Your task to perform on an android device: empty trash in the gmail app Image 0: 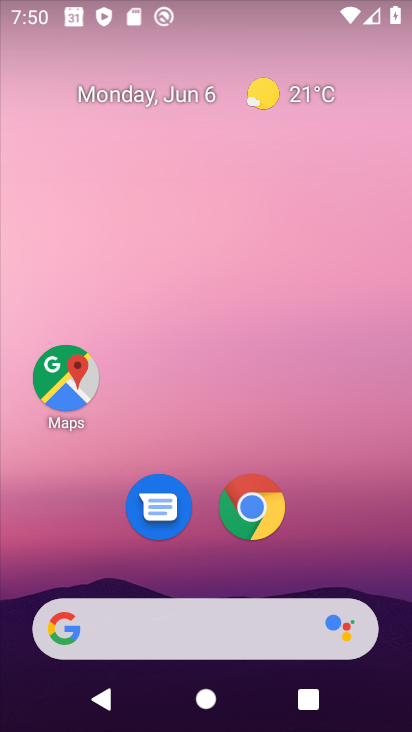
Step 0: drag from (198, 586) to (289, 12)
Your task to perform on an android device: empty trash in the gmail app Image 1: 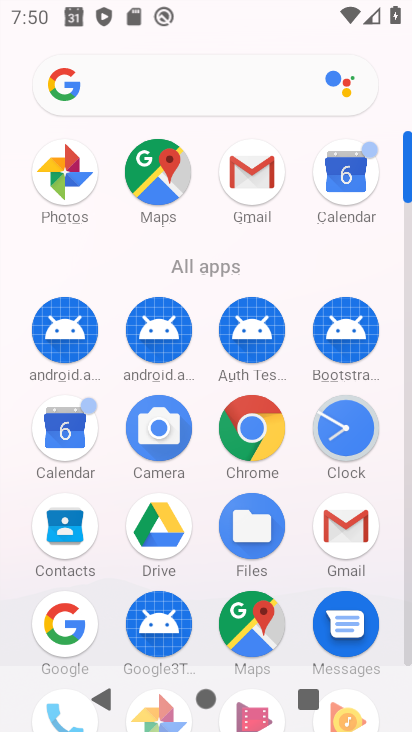
Step 1: click (345, 544)
Your task to perform on an android device: empty trash in the gmail app Image 2: 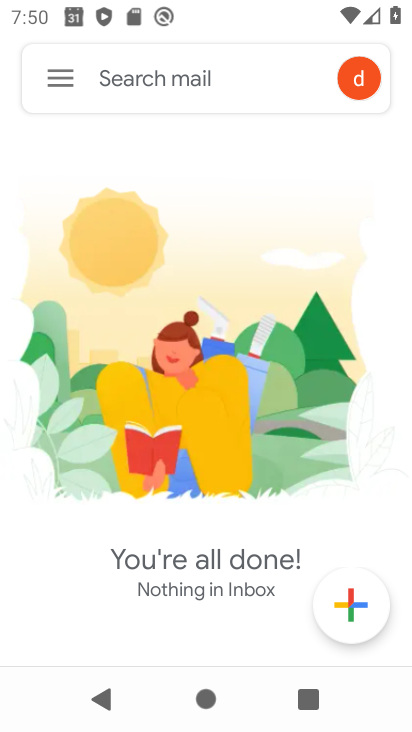
Step 2: click (56, 70)
Your task to perform on an android device: empty trash in the gmail app Image 3: 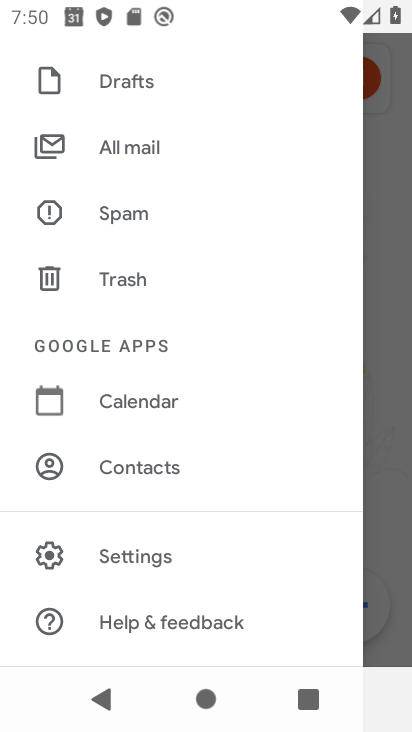
Step 3: click (134, 278)
Your task to perform on an android device: empty trash in the gmail app Image 4: 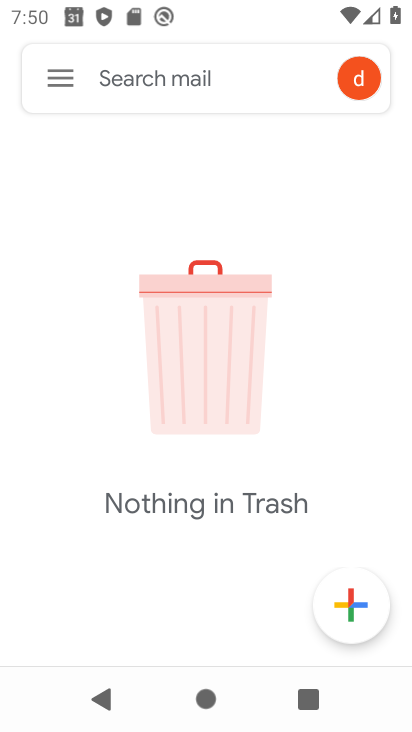
Step 4: task complete